Your task to perform on an android device: turn on showing notifications on the lock screen Image 0: 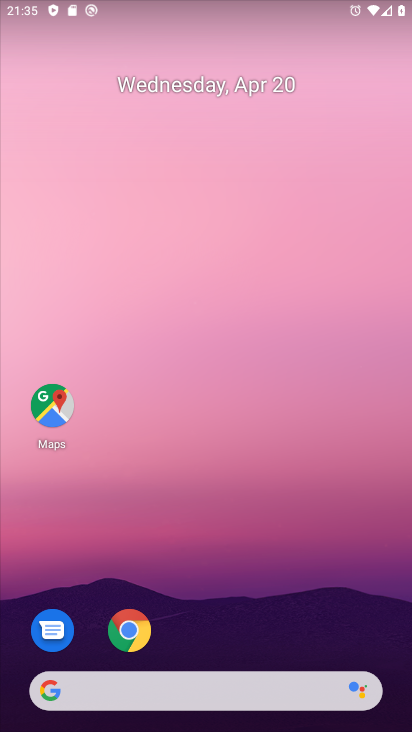
Step 0: drag from (246, 577) to (208, 149)
Your task to perform on an android device: turn on showing notifications on the lock screen Image 1: 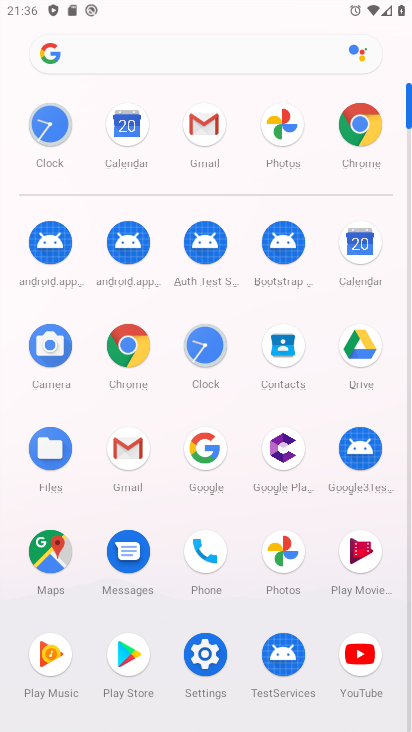
Step 1: click (201, 635)
Your task to perform on an android device: turn on showing notifications on the lock screen Image 2: 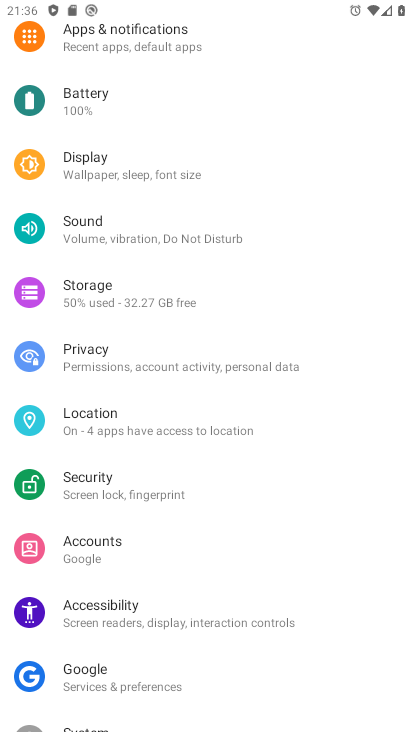
Step 2: click (121, 40)
Your task to perform on an android device: turn on showing notifications on the lock screen Image 3: 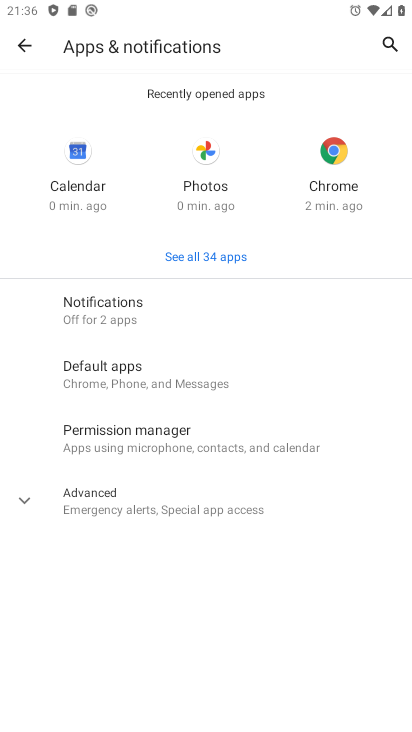
Step 3: click (133, 319)
Your task to perform on an android device: turn on showing notifications on the lock screen Image 4: 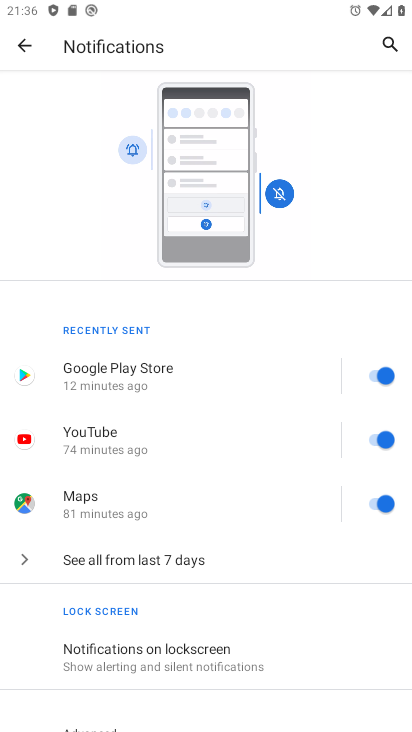
Step 4: click (132, 657)
Your task to perform on an android device: turn on showing notifications on the lock screen Image 5: 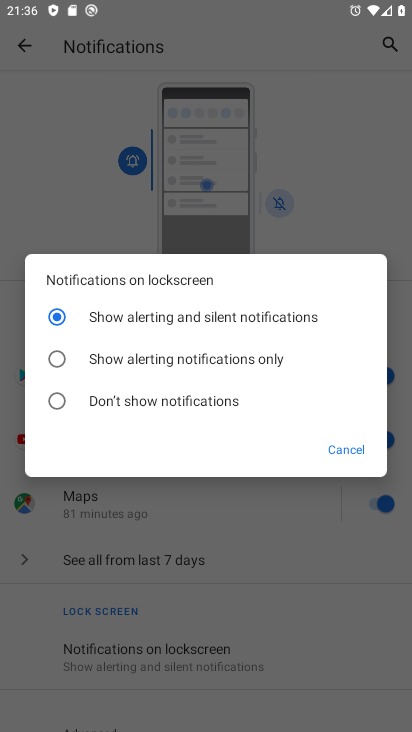
Step 5: click (99, 312)
Your task to perform on an android device: turn on showing notifications on the lock screen Image 6: 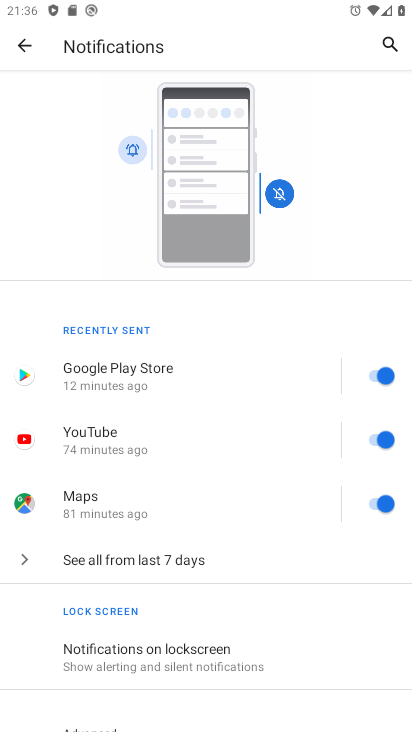
Step 6: task complete